Your task to perform on an android device: choose inbox layout in the gmail app Image 0: 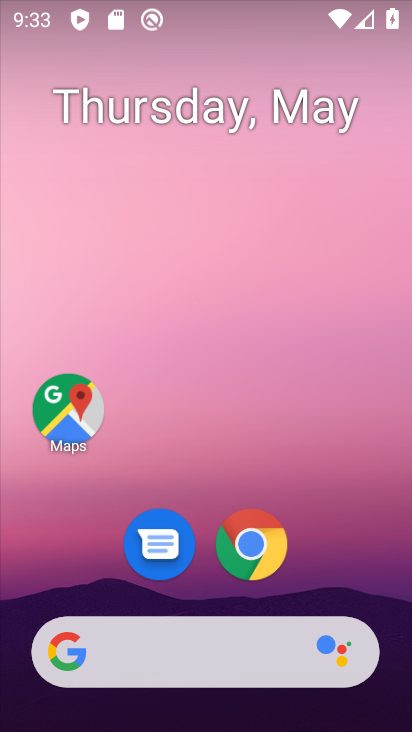
Step 0: drag from (202, 560) to (253, 232)
Your task to perform on an android device: choose inbox layout in the gmail app Image 1: 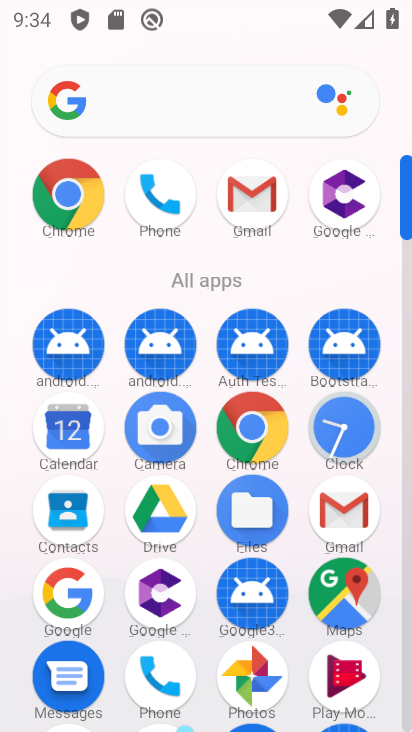
Step 1: click (345, 514)
Your task to perform on an android device: choose inbox layout in the gmail app Image 2: 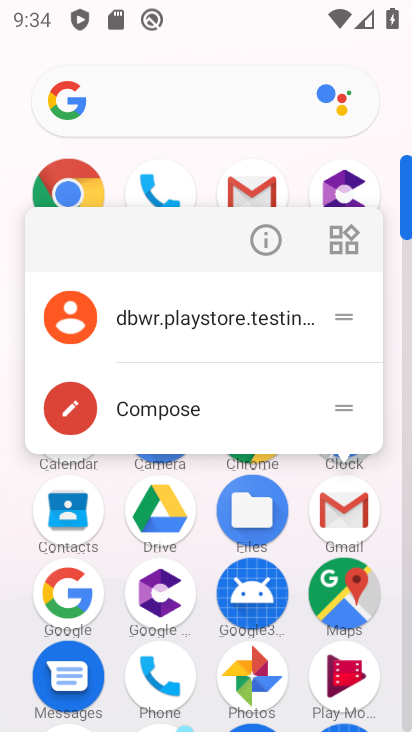
Step 2: click (350, 513)
Your task to perform on an android device: choose inbox layout in the gmail app Image 3: 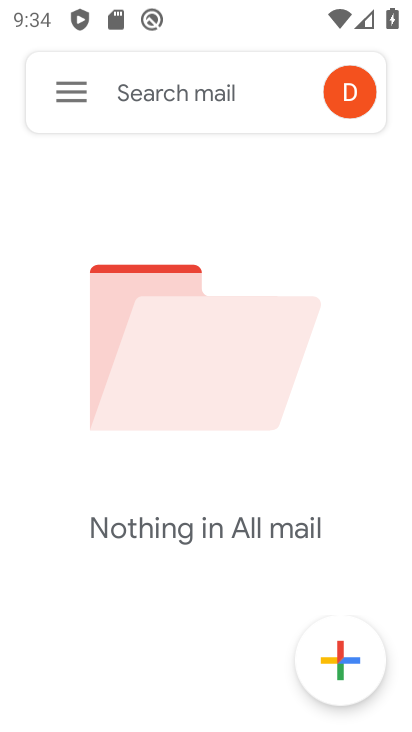
Step 3: click (73, 83)
Your task to perform on an android device: choose inbox layout in the gmail app Image 4: 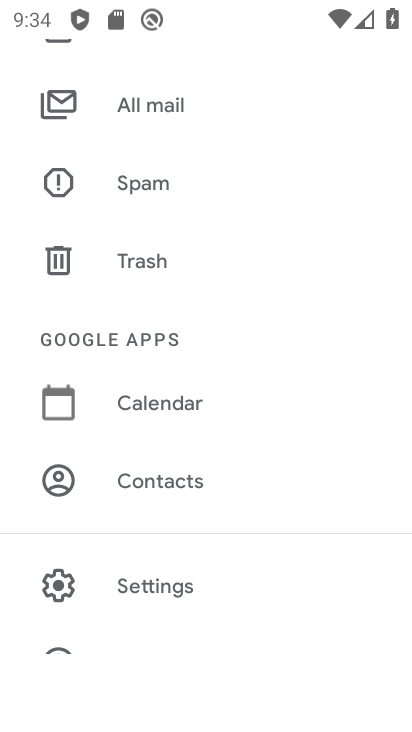
Step 4: click (163, 592)
Your task to perform on an android device: choose inbox layout in the gmail app Image 5: 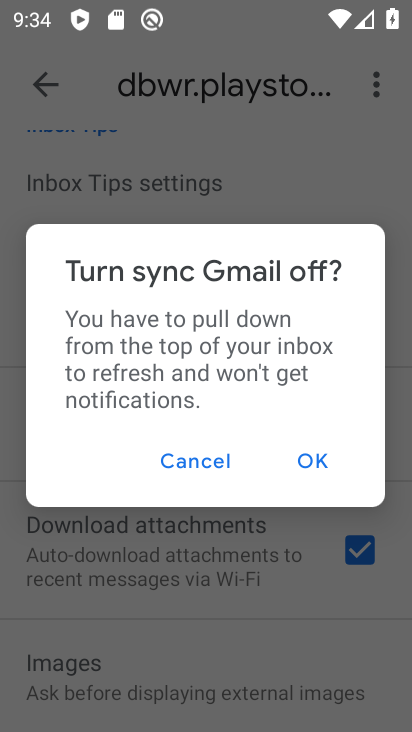
Step 5: click (202, 465)
Your task to perform on an android device: choose inbox layout in the gmail app Image 6: 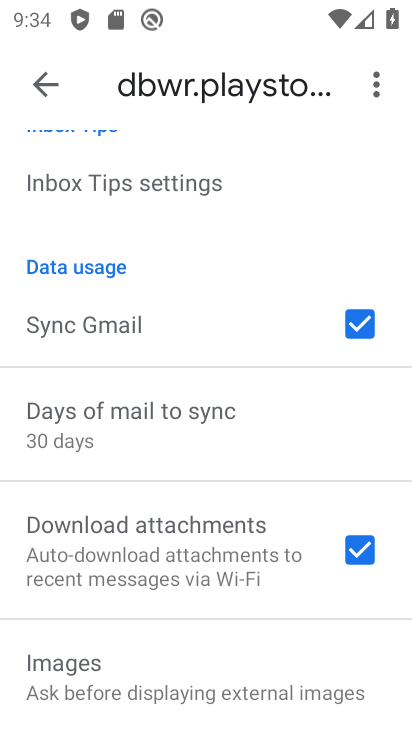
Step 6: drag from (121, 225) to (170, 541)
Your task to perform on an android device: choose inbox layout in the gmail app Image 7: 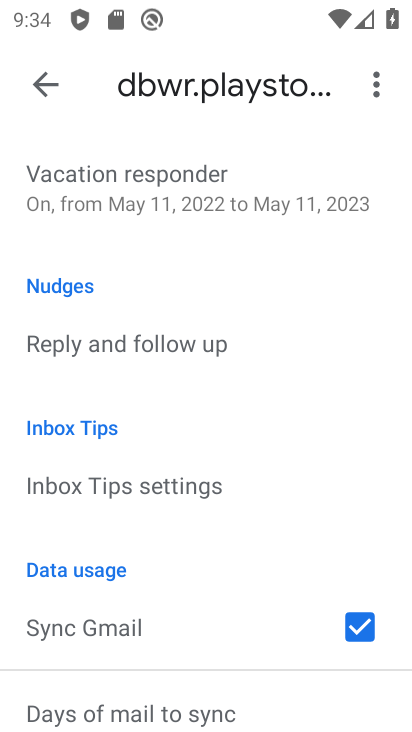
Step 7: drag from (153, 198) to (164, 590)
Your task to perform on an android device: choose inbox layout in the gmail app Image 8: 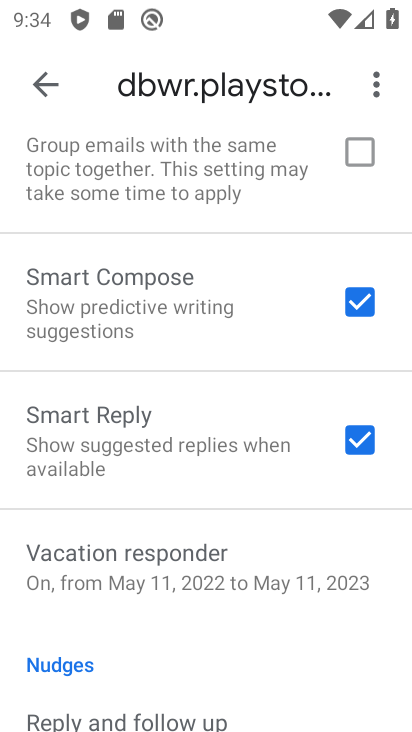
Step 8: drag from (192, 191) to (189, 531)
Your task to perform on an android device: choose inbox layout in the gmail app Image 9: 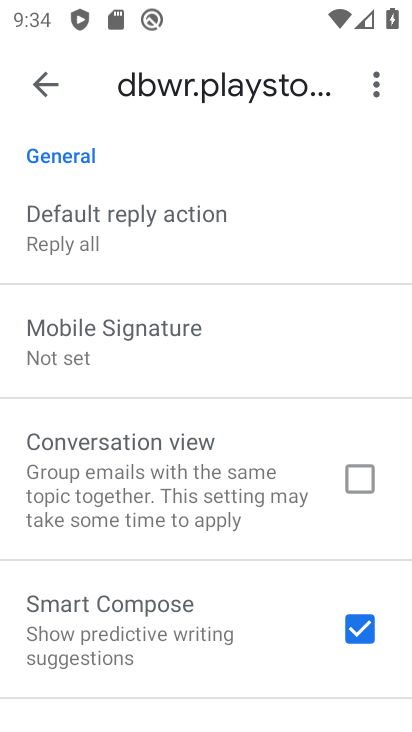
Step 9: drag from (146, 197) to (156, 514)
Your task to perform on an android device: choose inbox layout in the gmail app Image 10: 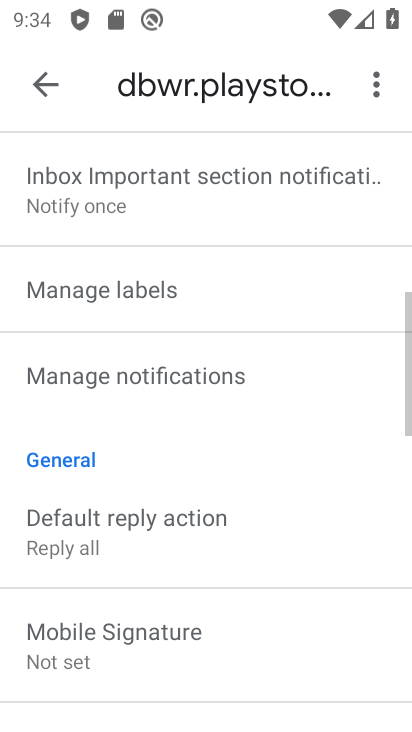
Step 10: drag from (154, 178) to (159, 459)
Your task to perform on an android device: choose inbox layout in the gmail app Image 11: 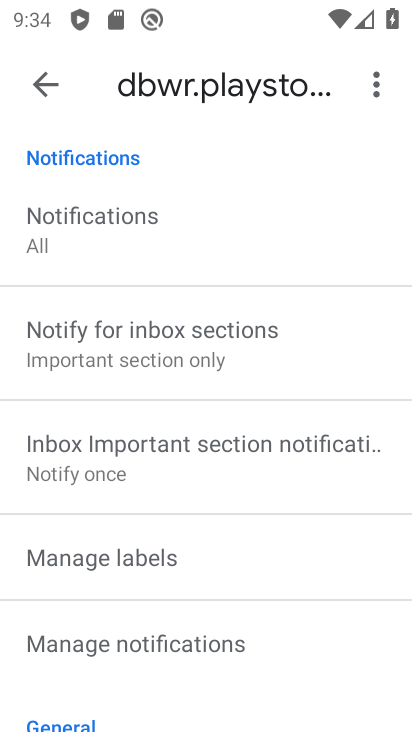
Step 11: drag from (134, 155) to (113, 419)
Your task to perform on an android device: choose inbox layout in the gmail app Image 12: 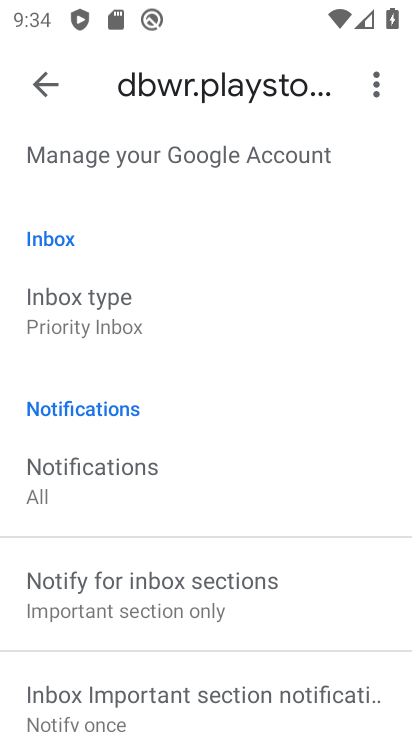
Step 12: click (76, 297)
Your task to perform on an android device: choose inbox layout in the gmail app Image 13: 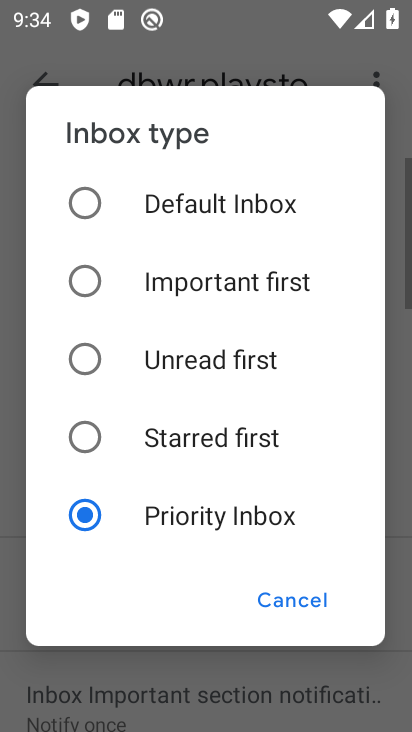
Step 13: click (172, 215)
Your task to perform on an android device: choose inbox layout in the gmail app Image 14: 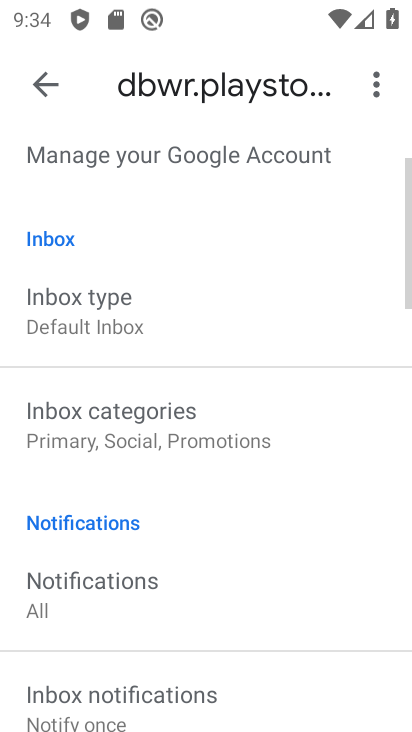
Step 14: task complete